Your task to perform on an android device: change text size in settings app Image 0: 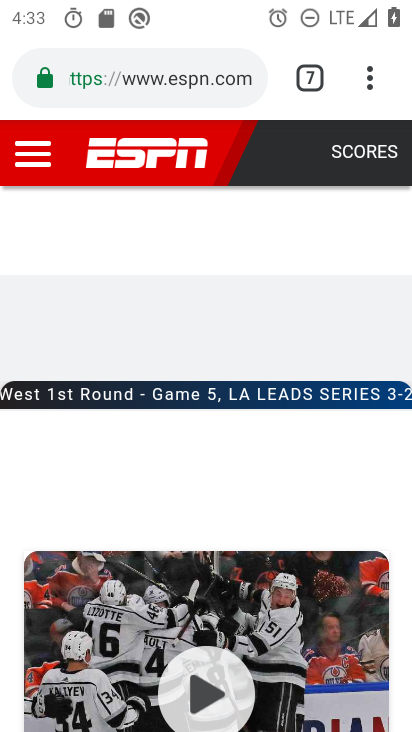
Step 0: press home button
Your task to perform on an android device: change text size in settings app Image 1: 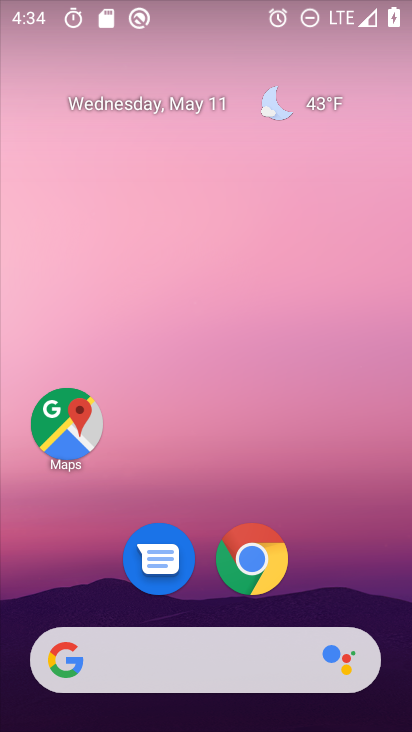
Step 1: drag from (318, 455) to (114, 13)
Your task to perform on an android device: change text size in settings app Image 2: 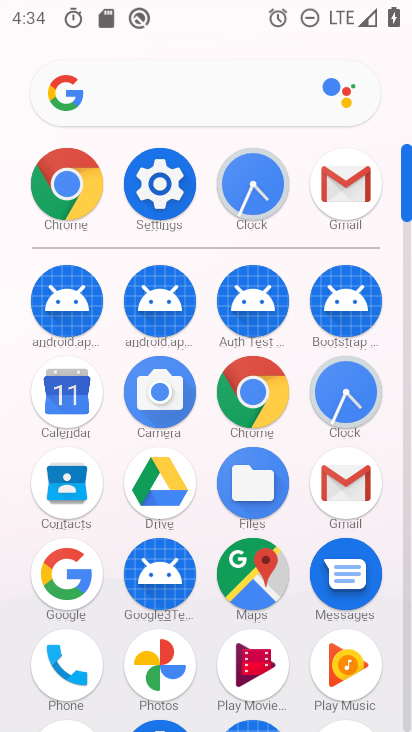
Step 2: click (165, 161)
Your task to perform on an android device: change text size in settings app Image 3: 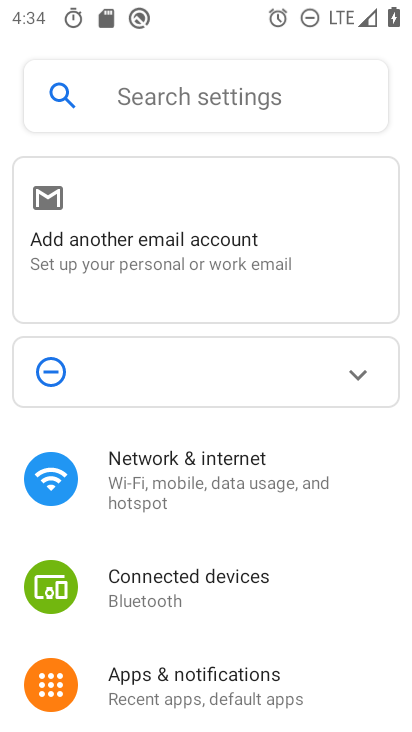
Step 3: drag from (259, 634) to (220, 331)
Your task to perform on an android device: change text size in settings app Image 4: 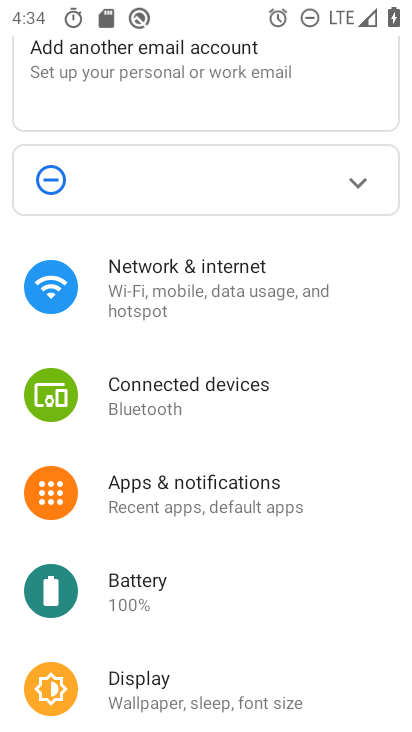
Step 4: click (216, 679)
Your task to perform on an android device: change text size in settings app Image 5: 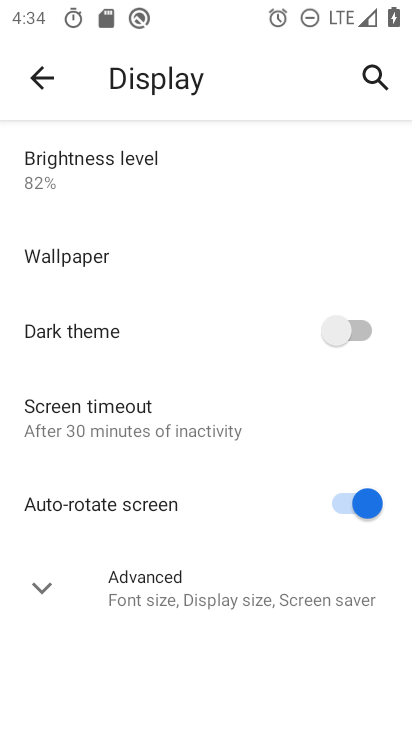
Step 5: click (128, 582)
Your task to perform on an android device: change text size in settings app Image 6: 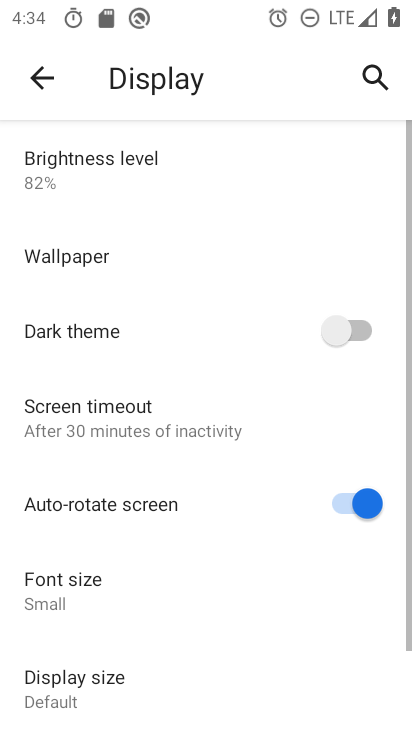
Step 6: click (111, 592)
Your task to perform on an android device: change text size in settings app Image 7: 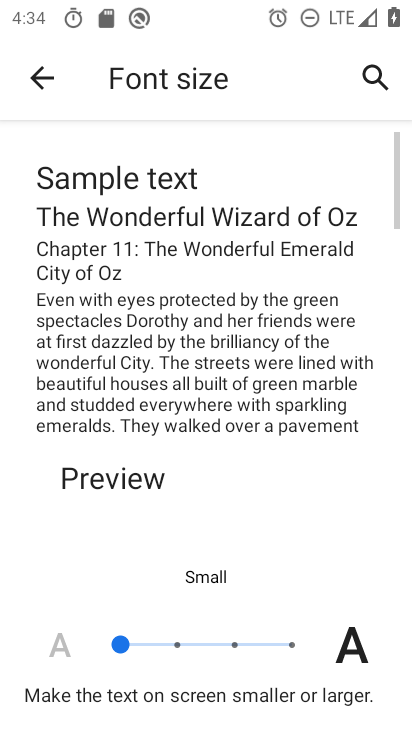
Step 7: click (172, 646)
Your task to perform on an android device: change text size in settings app Image 8: 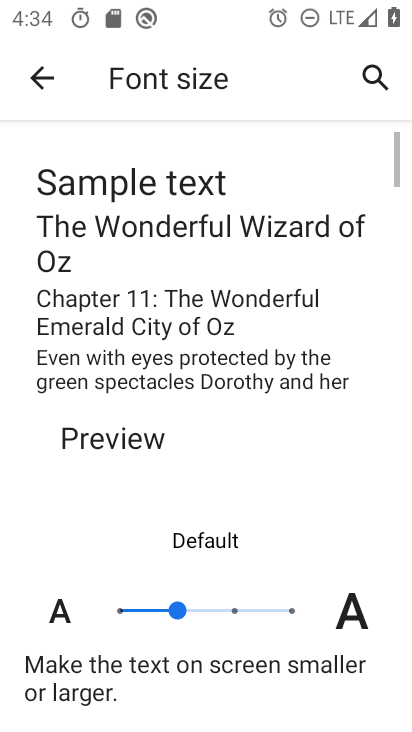
Step 8: task complete